Your task to perform on an android device: change the clock display to analog Image 0: 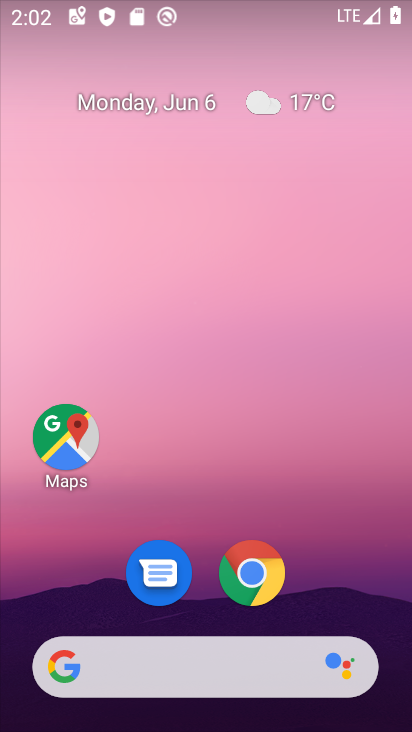
Step 0: drag from (380, 610) to (362, 121)
Your task to perform on an android device: change the clock display to analog Image 1: 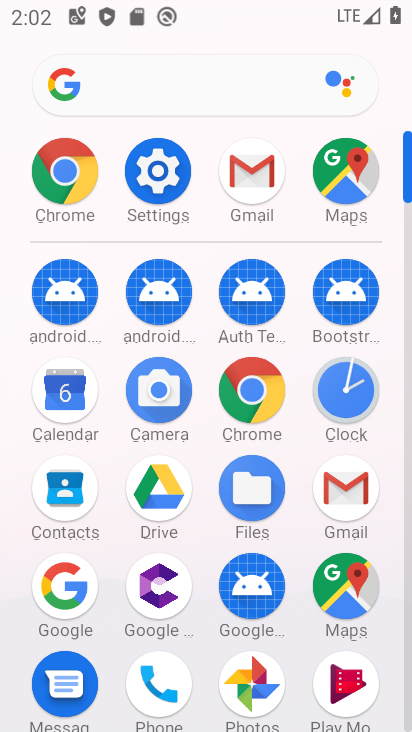
Step 1: click (355, 390)
Your task to perform on an android device: change the clock display to analog Image 2: 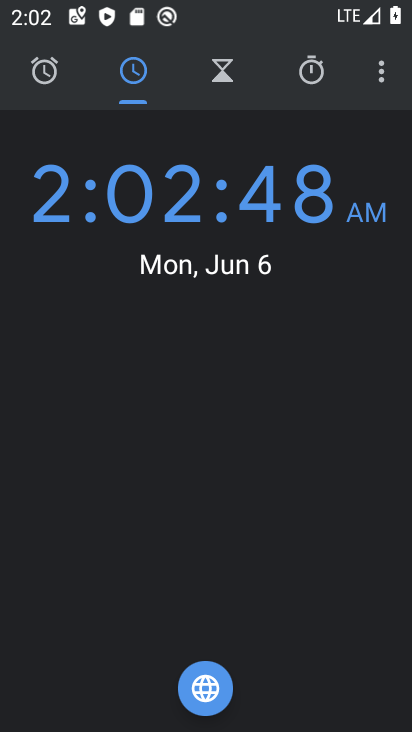
Step 2: click (381, 85)
Your task to perform on an android device: change the clock display to analog Image 3: 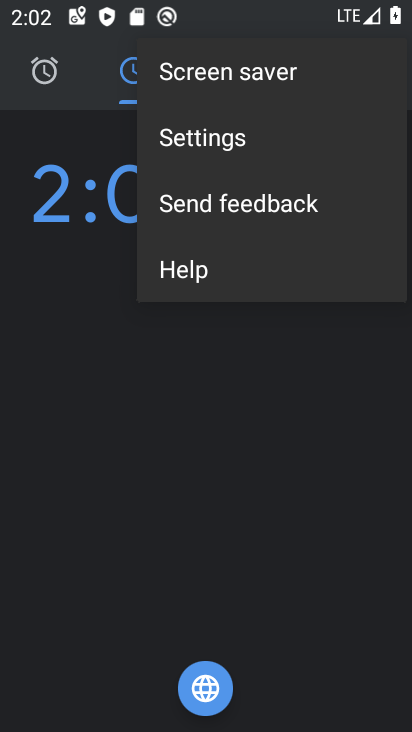
Step 3: click (243, 141)
Your task to perform on an android device: change the clock display to analog Image 4: 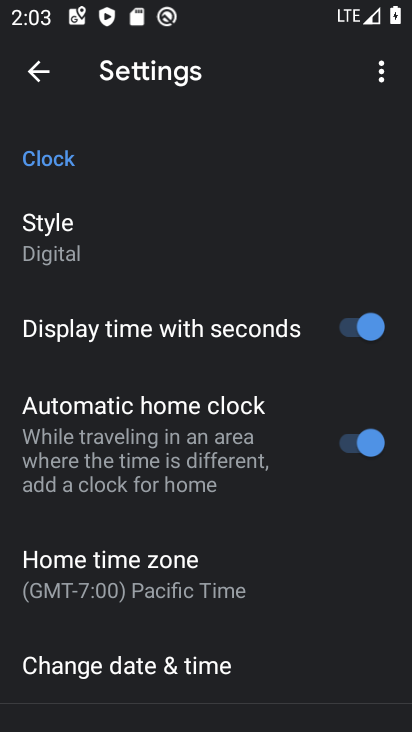
Step 4: click (137, 239)
Your task to perform on an android device: change the clock display to analog Image 5: 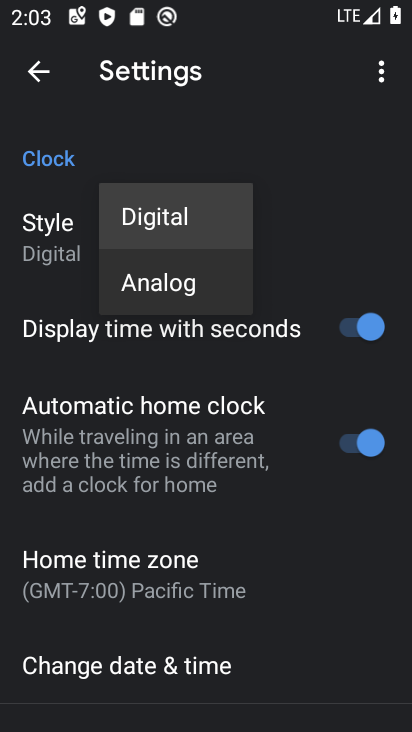
Step 5: click (172, 286)
Your task to perform on an android device: change the clock display to analog Image 6: 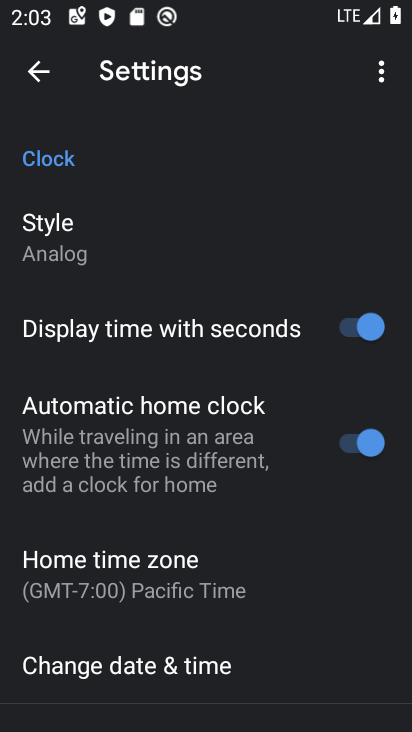
Step 6: task complete